Your task to perform on an android device: Open Maps and search for coffee Image 0: 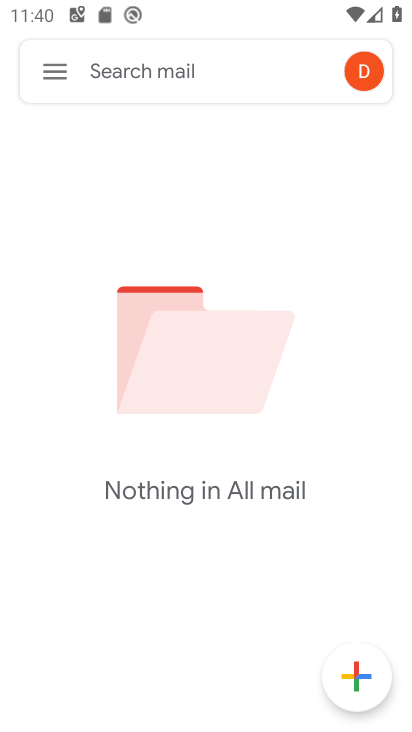
Step 0: press home button
Your task to perform on an android device: Open Maps and search for coffee Image 1: 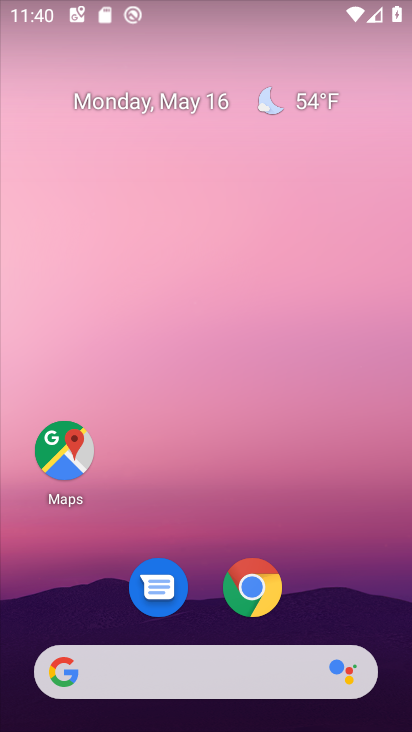
Step 1: click (71, 444)
Your task to perform on an android device: Open Maps and search for coffee Image 2: 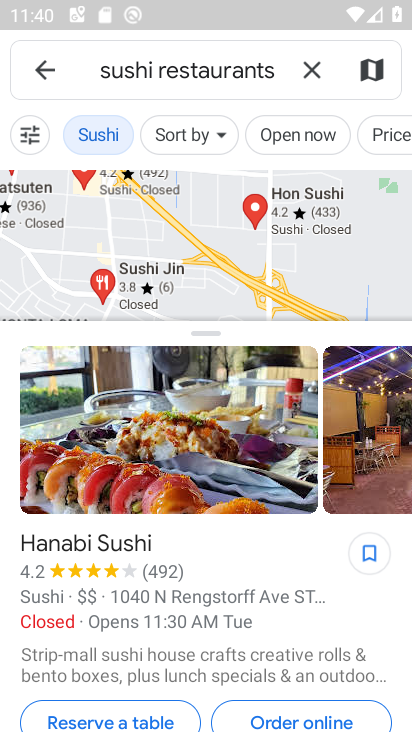
Step 2: click (314, 70)
Your task to perform on an android device: Open Maps and search for coffee Image 3: 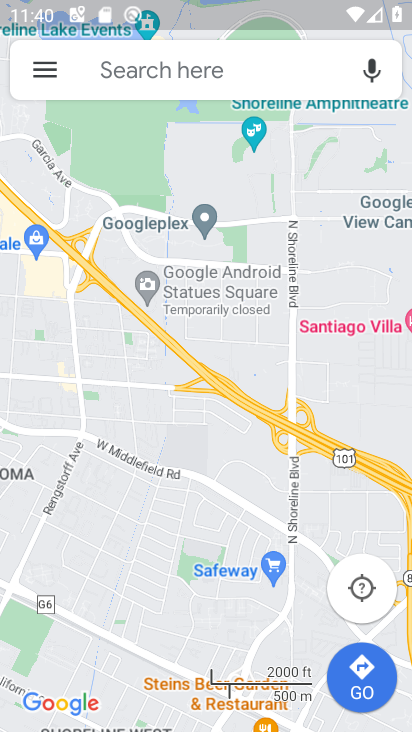
Step 3: click (157, 61)
Your task to perform on an android device: Open Maps and search for coffee Image 4: 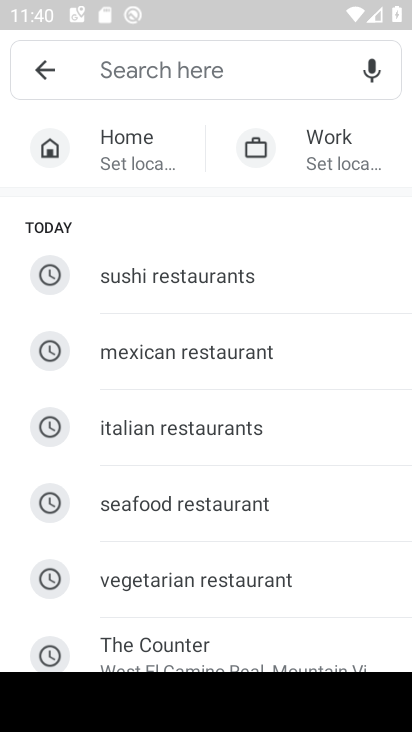
Step 4: type "coffee"
Your task to perform on an android device: Open Maps and search for coffee Image 5: 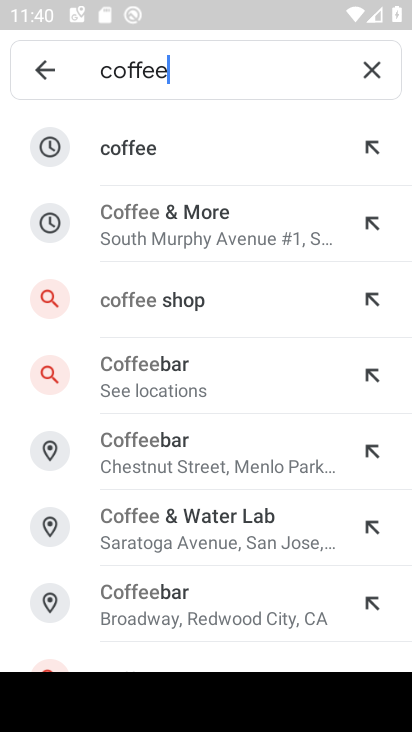
Step 5: click (214, 159)
Your task to perform on an android device: Open Maps and search for coffee Image 6: 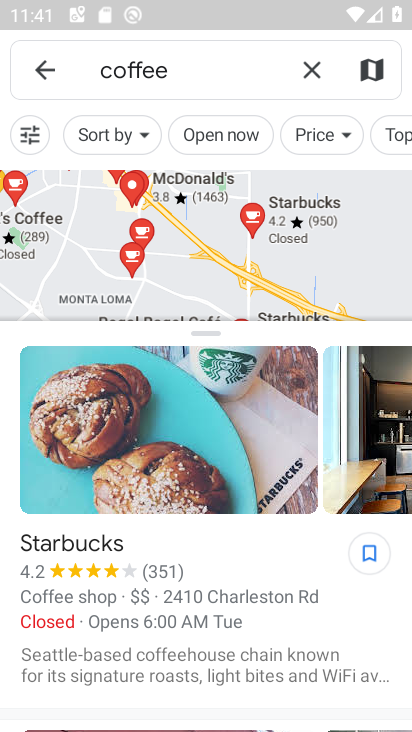
Step 6: task complete